Your task to perform on an android device: Show me popular videos on Youtube Image 0: 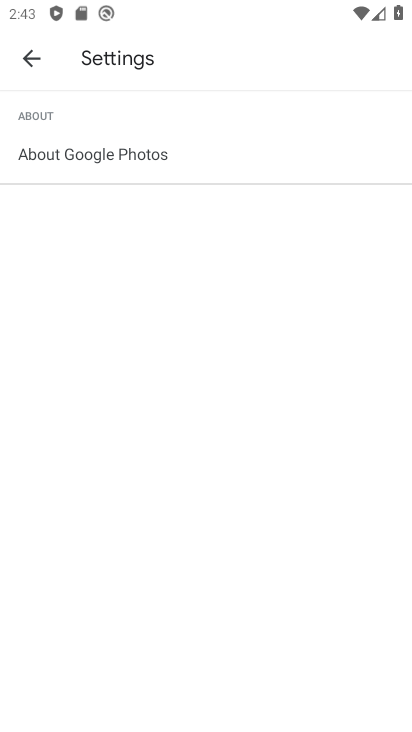
Step 0: press home button
Your task to perform on an android device: Show me popular videos on Youtube Image 1: 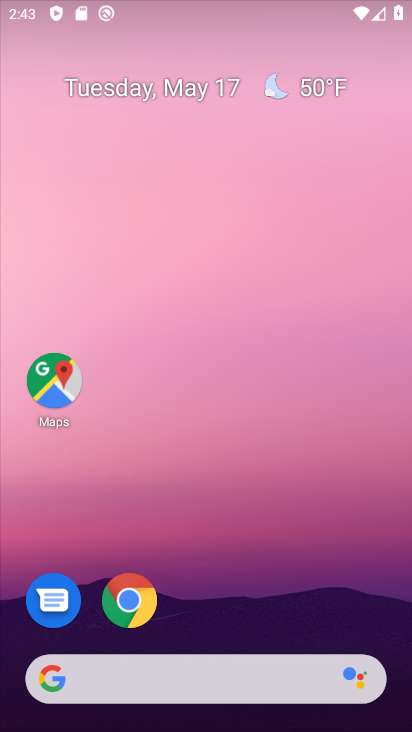
Step 1: drag from (290, 549) to (257, 92)
Your task to perform on an android device: Show me popular videos on Youtube Image 2: 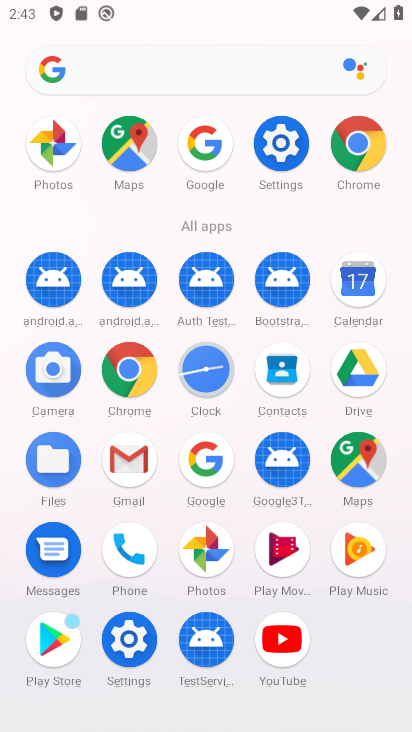
Step 2: click (278, 639)
Your task to perform on an android device: Show me popular videos on Youtube Image 3: 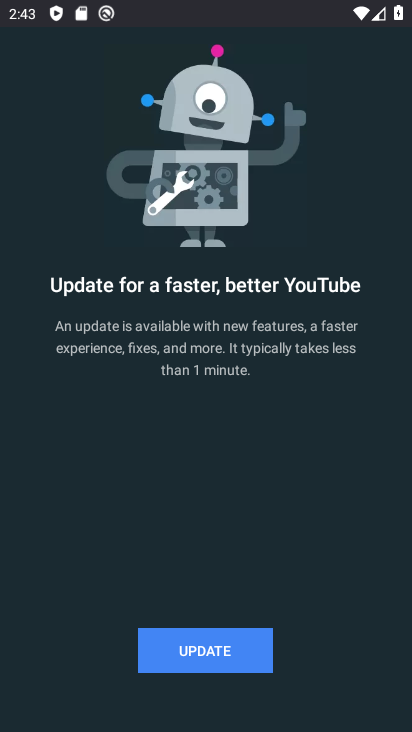
Step 3: click (207, 658)
Your task to perform on an android device: Show me popular videos on Youtube Image 4: 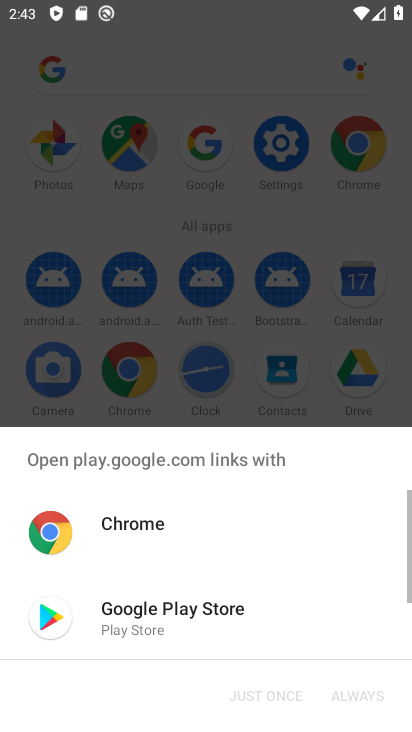
Step 4: click (254, 624)
Your task to perform on an android device: Show me popular videos on Youtube Image 5: 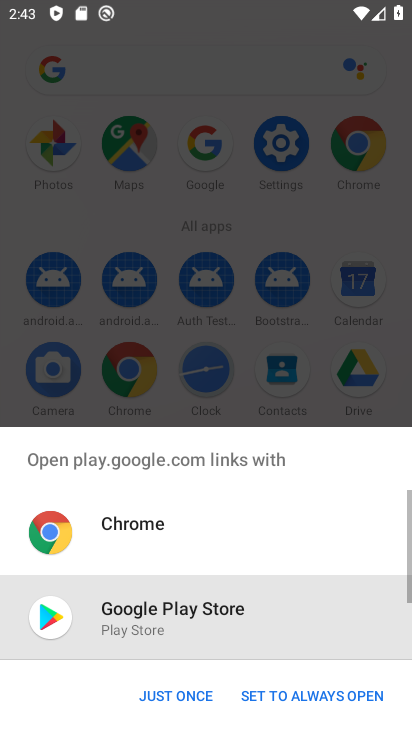
Step 5: click (196, 694)
Your task to perform on an android device: Show me popular videos on Youtube Image 6: 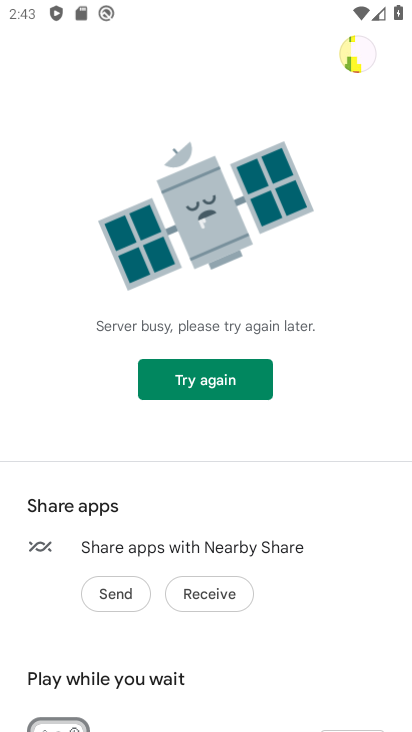
Step 6: task complete